Your task to perform on an android device: Check the weather Image 0: 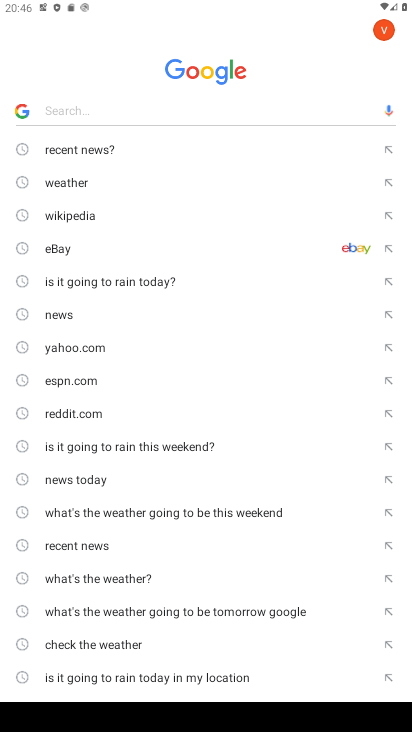
Step 0: click (178, 180)
Your task to perform on an android device: Check the weather Image 1: 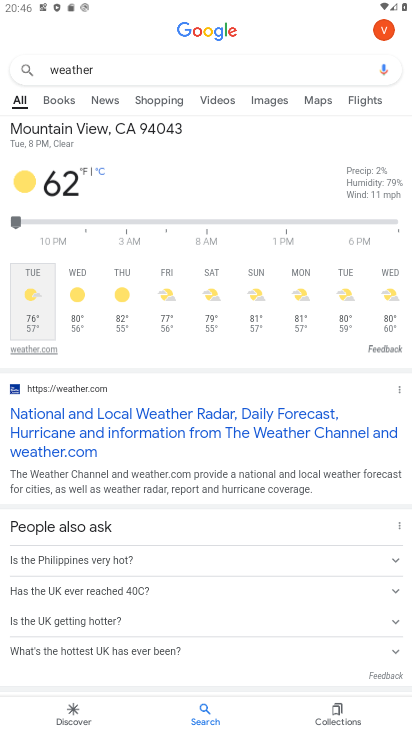
Step 1: task complete